Your task to perform on an android device: open app "Chime – Mobile Banking" (install if not already installed) and enter user name: "bullfrog@inbox.com" and password: "breaker" Image 0: 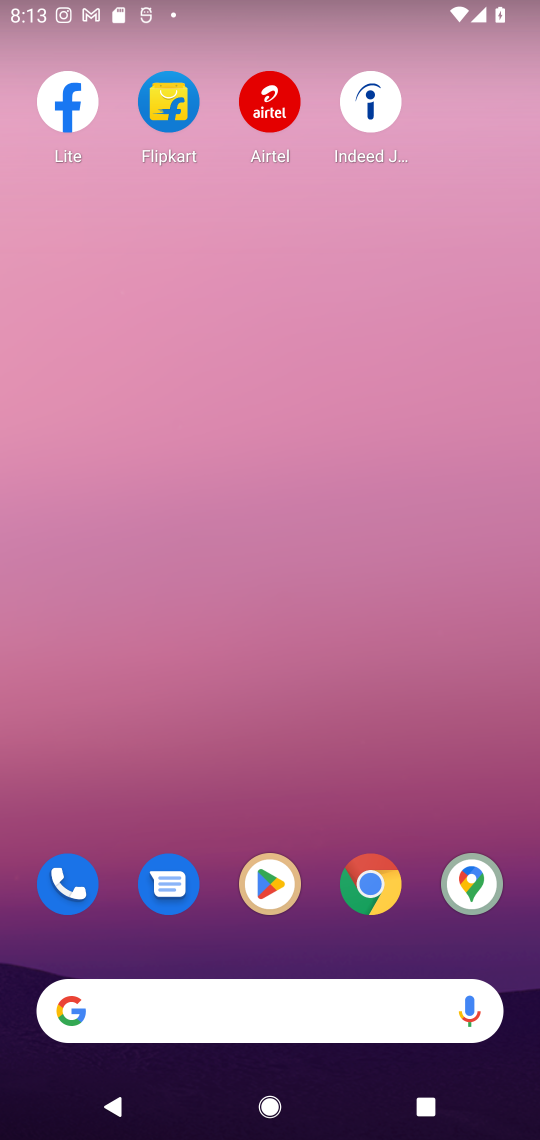
Step 0: drag from (272, 1007) to (248, 204)
Your task to perform on an android device: open app "Chime – Mobile Banking" (install if not already installed) and enter user name: "bullfrog@inbox.com" and password: "breaker" Image 1: 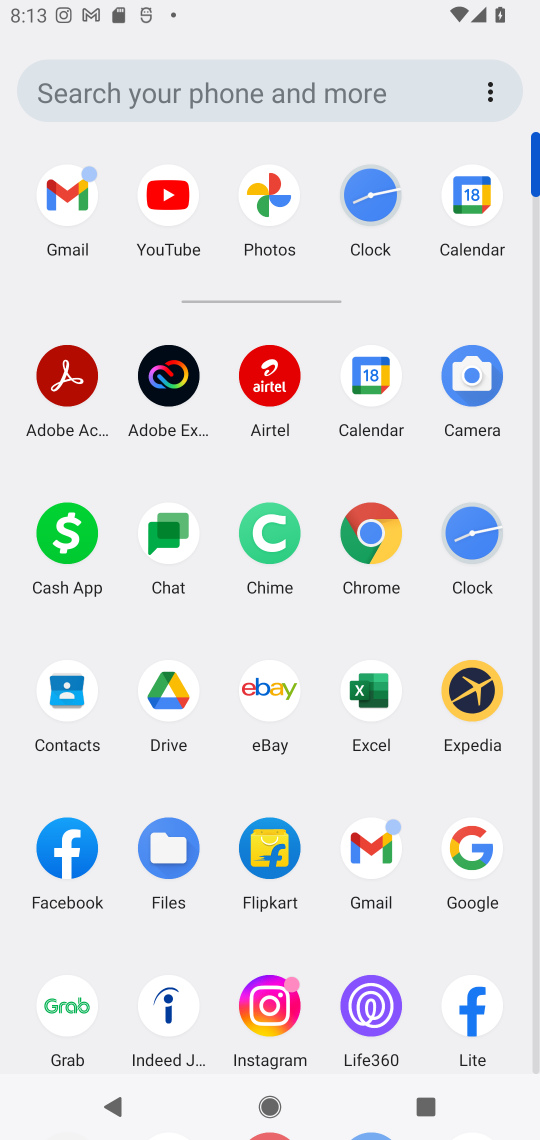
Step 1: drag from (308, 929) to (355, 350)
Your task to perform on an android device: open app "Chime – Mobile Banking" (install if not already installed) and enter user name: "bullfrog@inbox.com" and password: "breaker" Image 2: 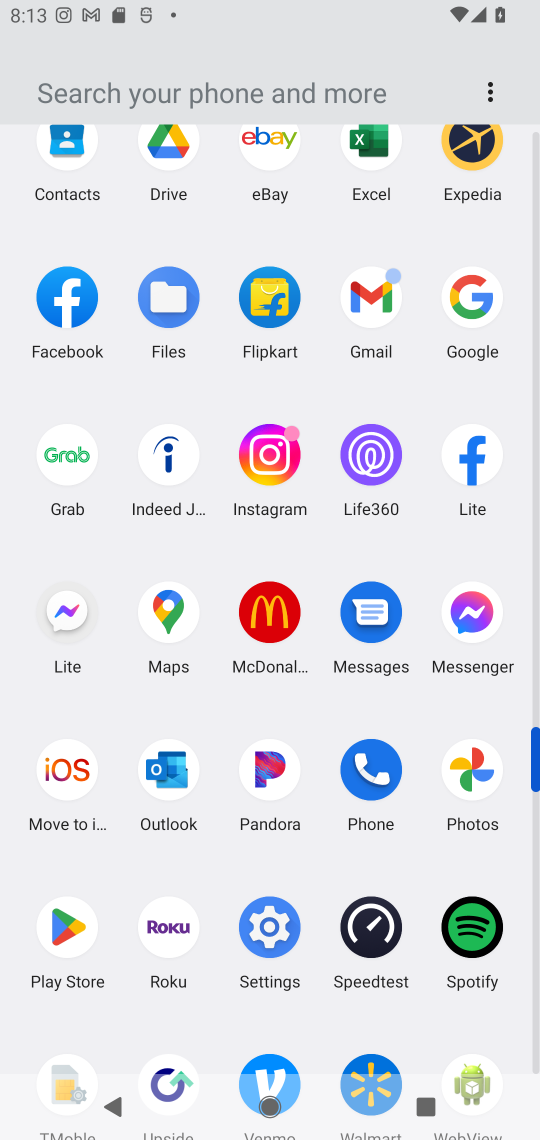
Step 2: click (71, 933)
Your task to perform on an android device: open app "Chime – Mobile Banking" (install if not already installed) and enter user name: "bullfrog@inbox.com" and password: "breaker" Image 3: 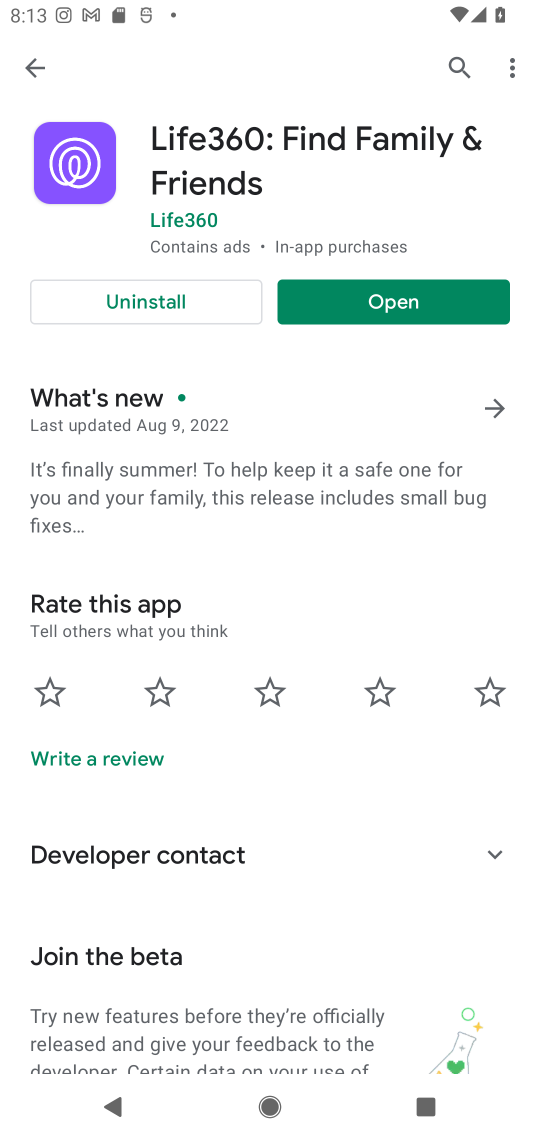
Step 3: press back button
Your task to perform on an android device: open app "Chime – Mobile Banking" (install if not already installed) and enter user name: "bullfrog@inbox.com" and password: "breaker" Image 4: 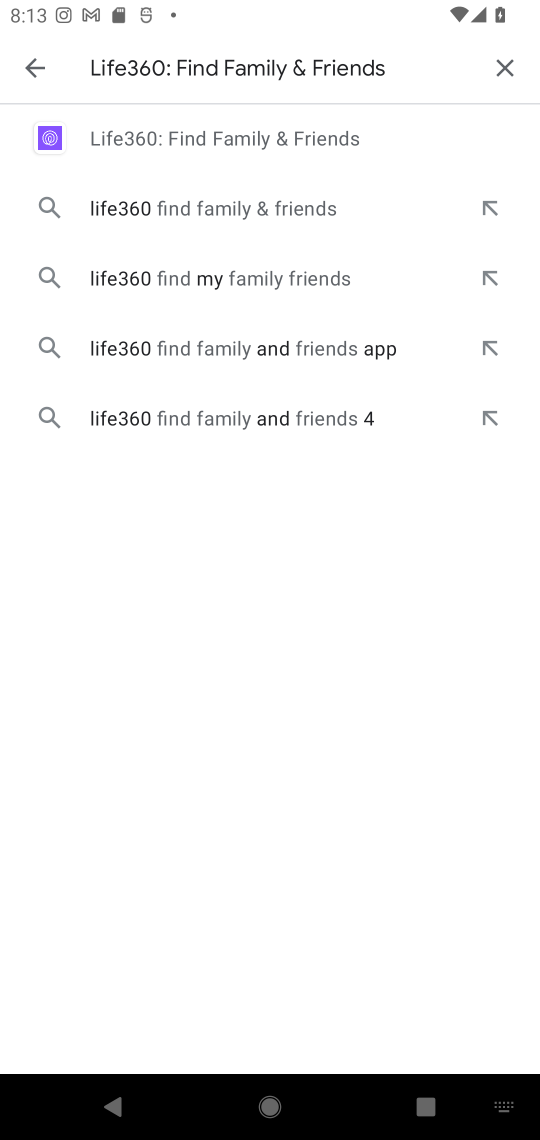
Step 4: press back button
Your task to perform on an android device: open app "Chime – Mobile Banking" (install if not already installed) and enter user name: "bullfrog@inbox.com" and password: "breaker" Image 5: 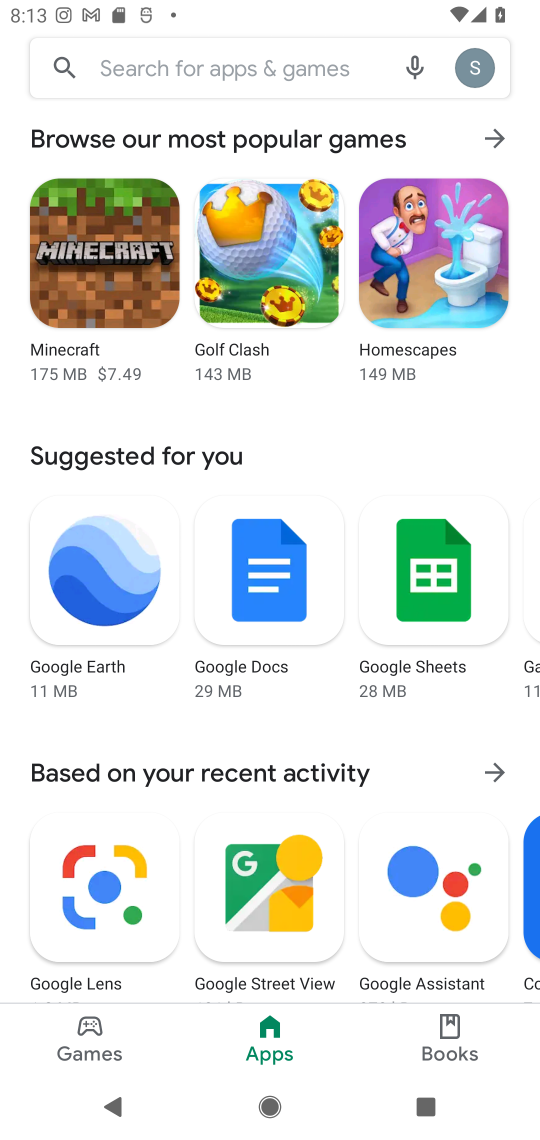
Step 5: click (233, 61)
Your task to perform on an android device: open app "Chime – Mobile Banking" (install if not already installed) and enter user name: "bullfrog@inbox.com" and password: "breaker" Image 6: 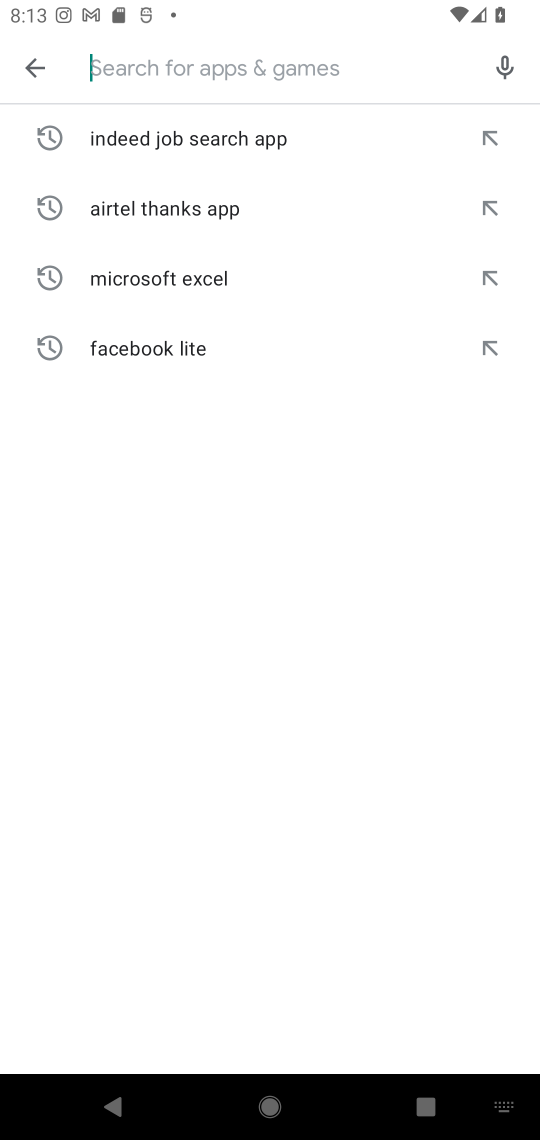
Step 6: type "Chime - Mobile Banking"
Your task to perform on an android device: open app "Chime – Mobile Banking" (install if not already installed) and enter user name: "bullfrog@inbox.com" and password: "breaker" Image 7: 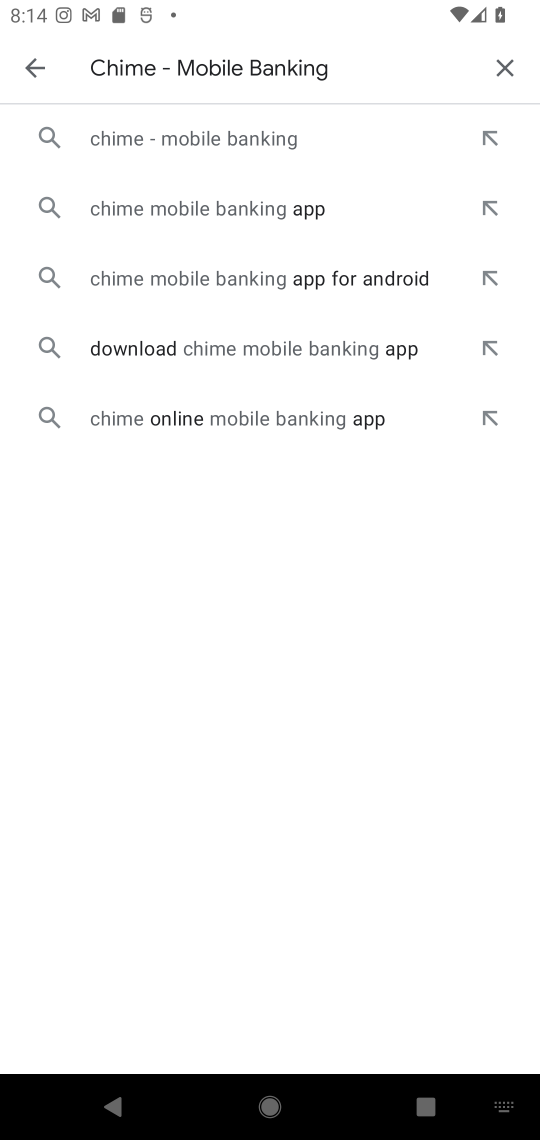
Step 7: click (254, 146)
Your task to perform on an android device: open app "Chime – Mobile Banking" (install if not already installed) and enter user name: "bullfrog@inbox.com" and password: "breaker" Image 8: 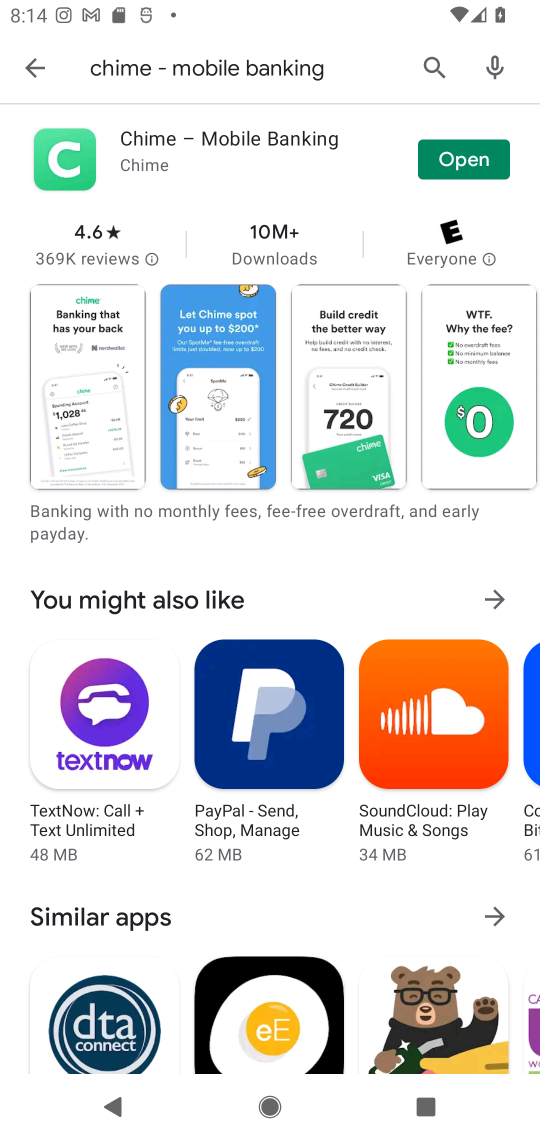
Step 8: click (456, 161)
Your task to perform on an android device: open app "Chime – Mobile Banking" (install if not already installed) and enter user name: "bullfrog@inbox.com" and password: "breaker" Image 9: 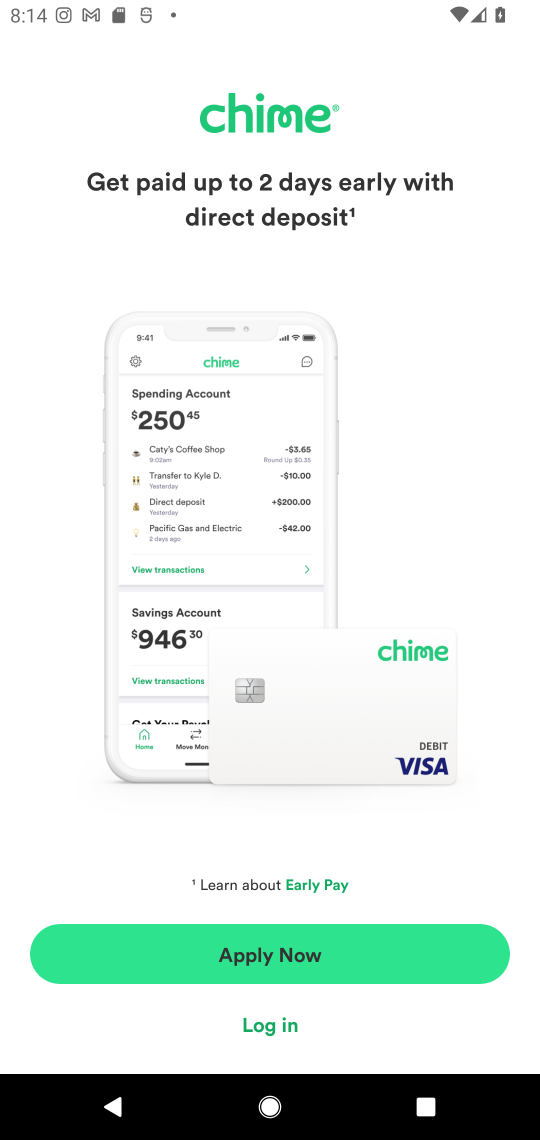
Step 9: click (279, 1013)
Your task to perform on an android device: open app "Chime – Mobile Banking" (install if not already installed) and enter user name: "bullfrog@inbox.com" and password: "breaker" Image 10: 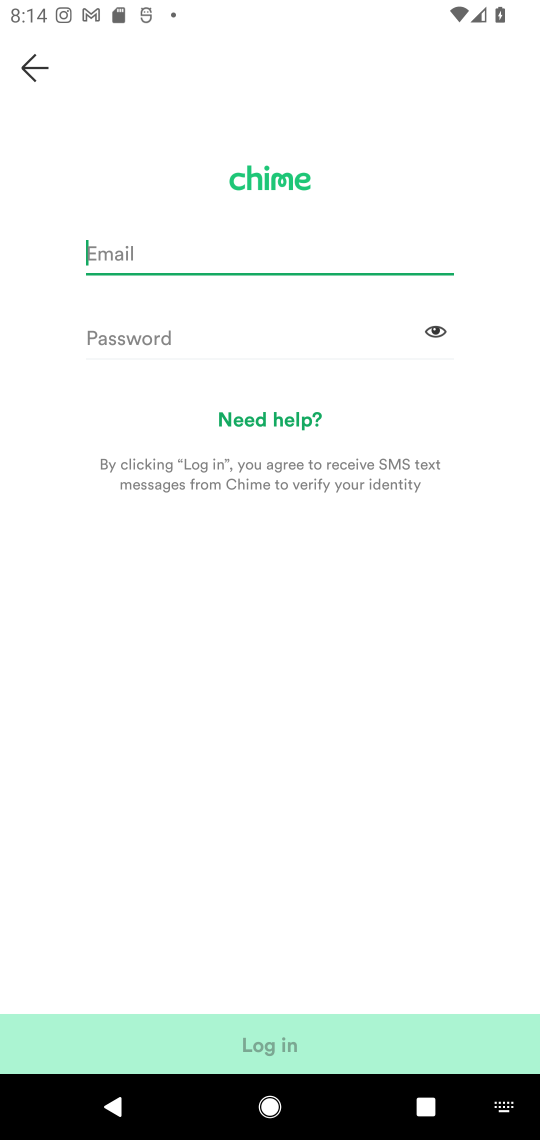
Step 10: type "bullfrog@inbox.com"
Your task to perform on an android device: open app "Chime – Mobile Banking" (install if not already installed) and enter user name: "bullfrog@inbox.com" and password: "breaker" Image 11: 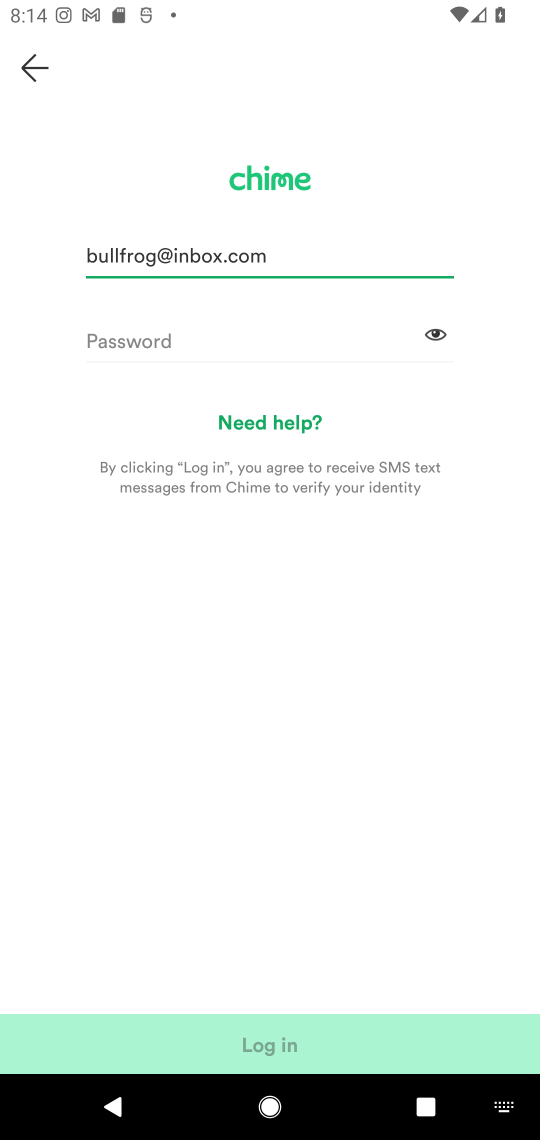
Step 11: click (180, 344)
Your task to perform on an android device: open app "Chime – Mobile Banking" (install if not already installed) and enter user name: "bullfrog@inbox.com" and password: "breaker" Image 12: 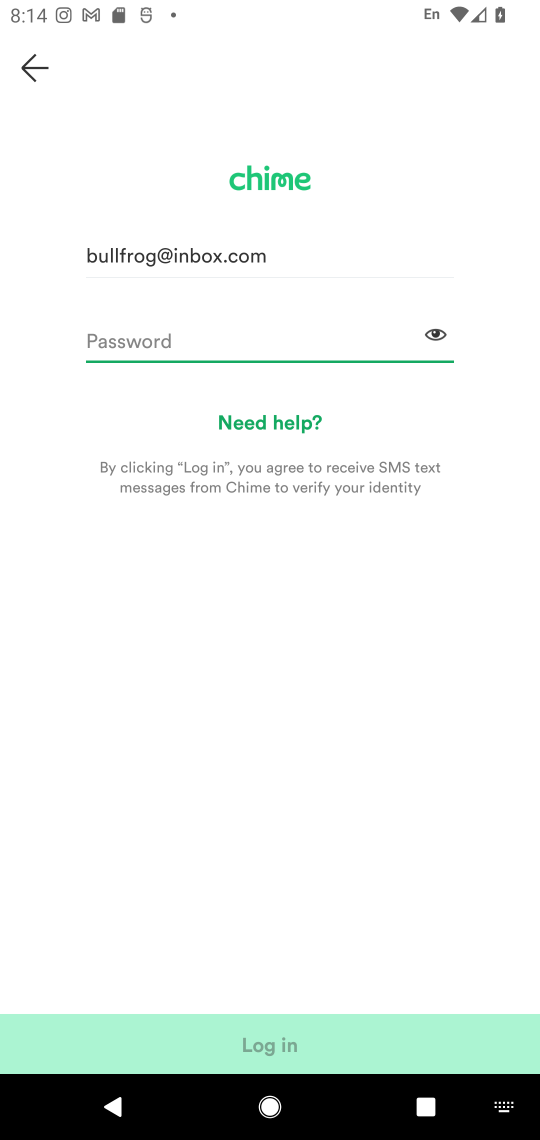
Step 12: type "breaker"
Your task to perform on an android device: open app "Chime – Mobile Banking" (install if not already installed) and enter user name: "bullfrog@inbox.com" and password: "breaker" Image 13: 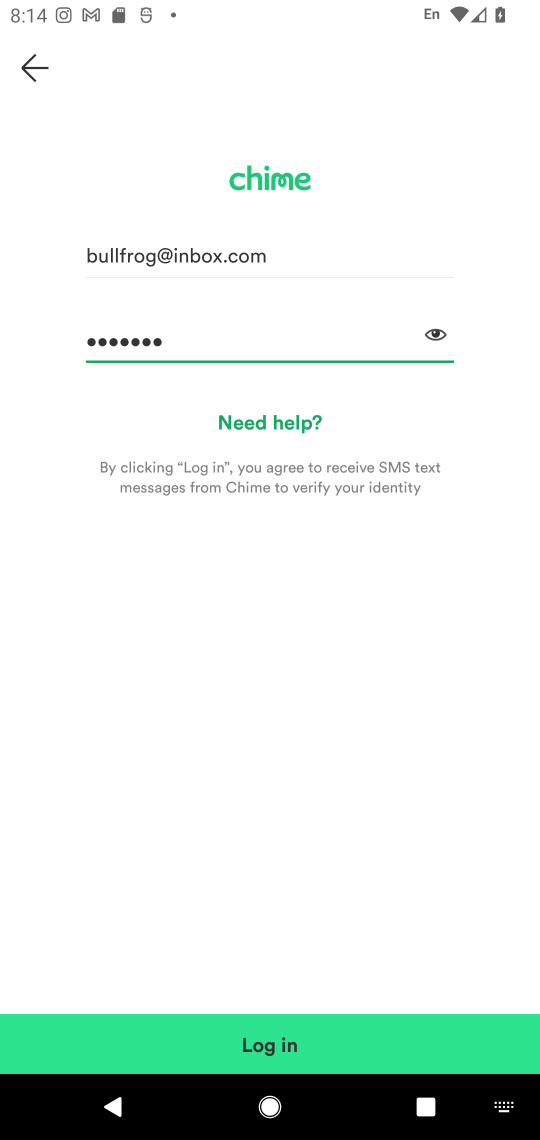
Step 13: task complete